Your task to perform on an android device: Go to privacy settings Image 0: 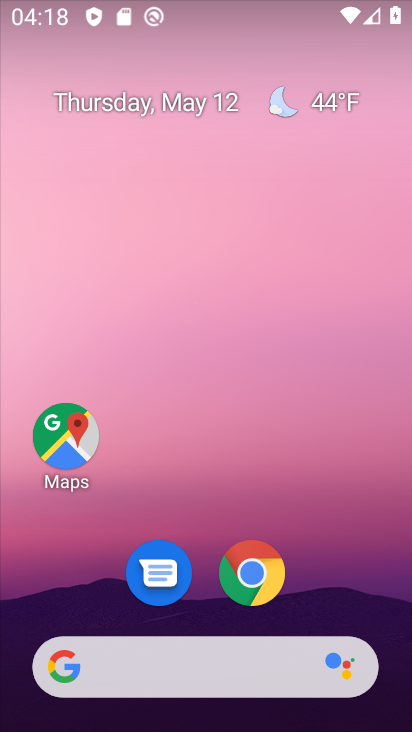
Step 0: drag from (391, 641) to (278, 144)
Your task to perform on an android device: Go to privacy settings Image 1: 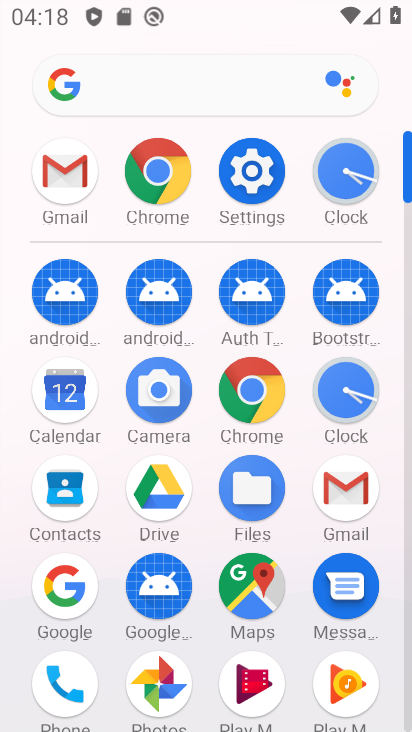
Step 1: click (406, 683)
Your task to perform on an android device: Go to privacy settings Image 2: 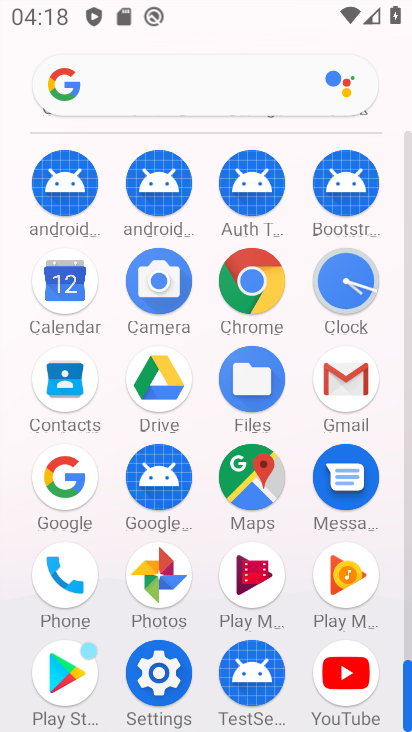
Step 2: click (159, 672)
Your task to perform on an android device: Go to privacy settings Image 3: 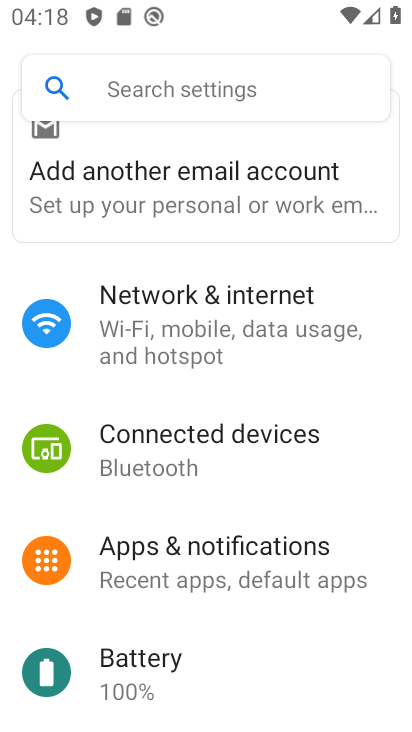
Step 3: drag from (345, 653) to (317, 51)
Your task to perform on an android device: Go to privacy settings Image 4: 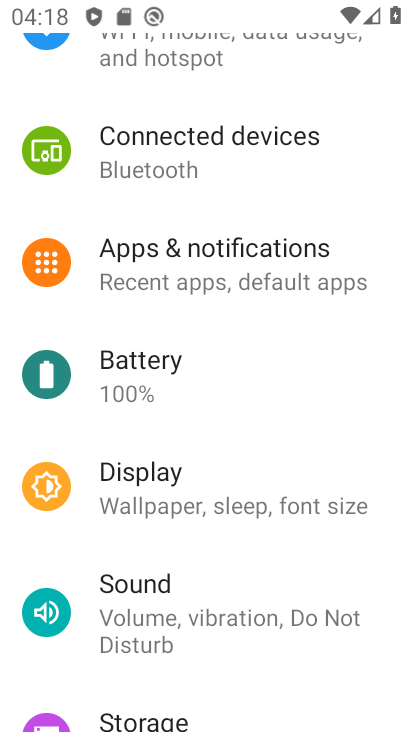
Step 4: drag from (345, 609) to (277, 215)
Your task to perform on an android device: Go to privacy settings Image 5: 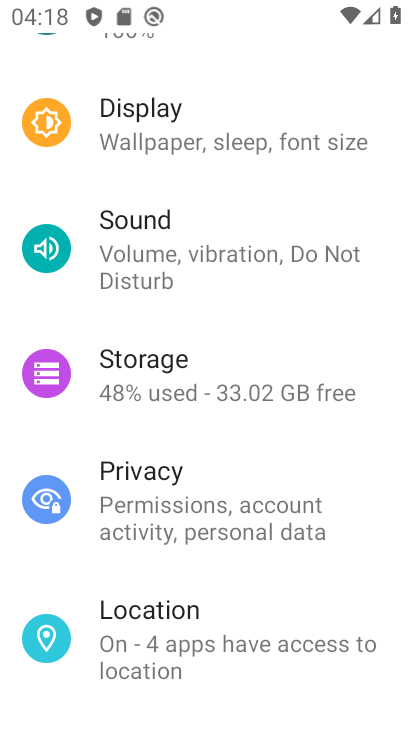
Step 5: click (145, 495)
Your task to perform on an android device: Go to privacy settings Image 6: 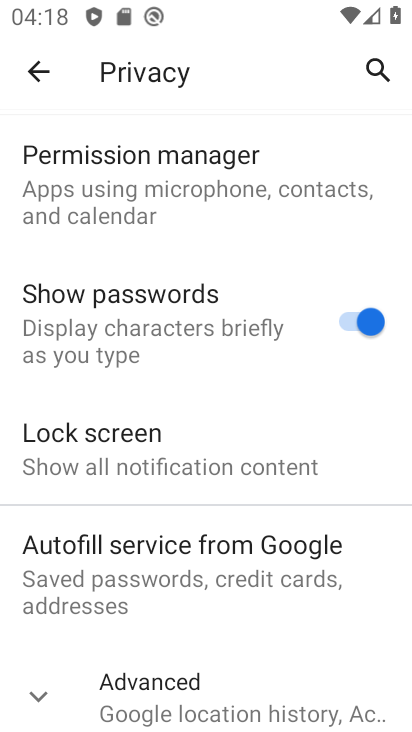
Step 6: click (44, 702)
Your task to perform on an android device: Go to privacy settings Image 7: 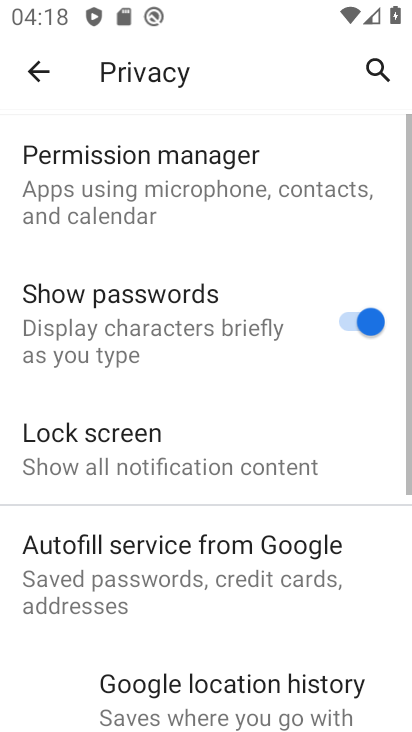
Step 7: task complete